Your task to perform on an android device: Go to Reddit.com Image 0: 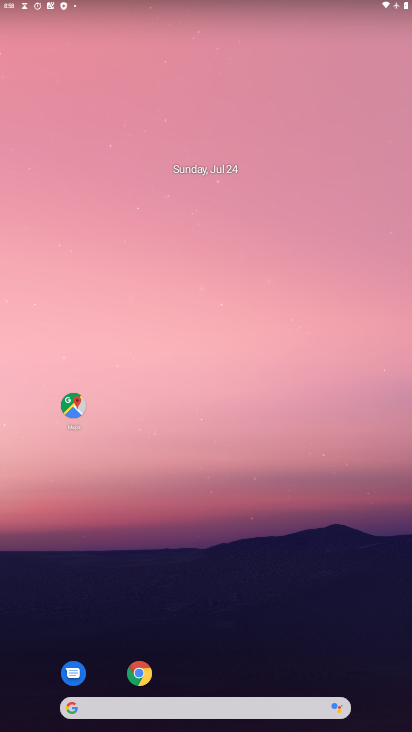
Step 0: drag from (178, 655) to (209, 208)
Your task to perform on an android device: Go to Reddit.com Image 1: 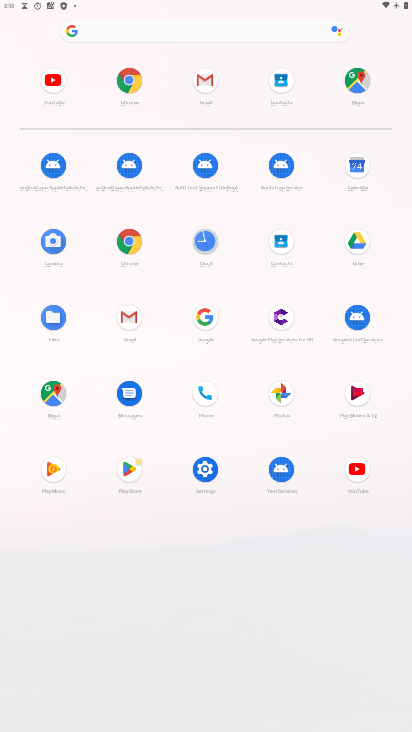
Step 1: drag from (223, 647) to (265, 7)
Your task to perform on an android device: Go to Reddit.com Image 2: 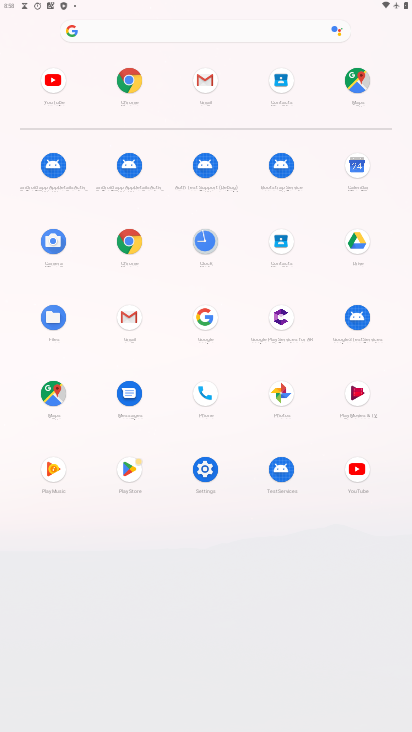
Step 2: click (155, 30)
Your task to perform on an android device: Go to Reddit.com Image 3: 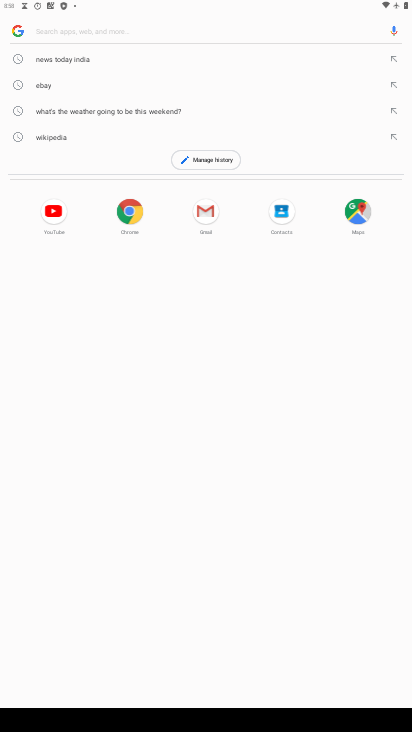
Step 3: type "reddit.com"
Your task to perform on an android device: Go to Reddit.com Image 4: 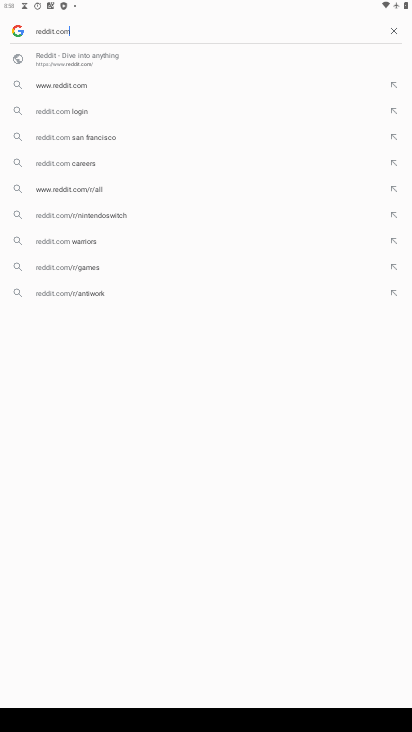
Step 4: click (77, 88)
Your task to perform on an android device: Go to Reddit.com Image 5: 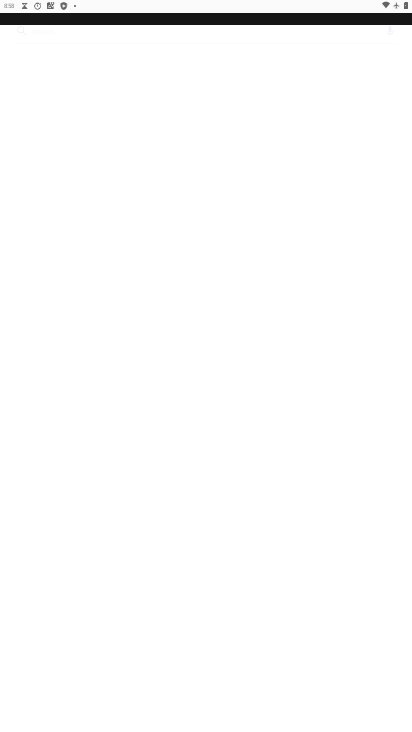
Step 5: task complete